Your task to perform on an android device: open app "Expedia: Hotels, Flights & Car" (install if not already installed) and go to login screen Image 0: 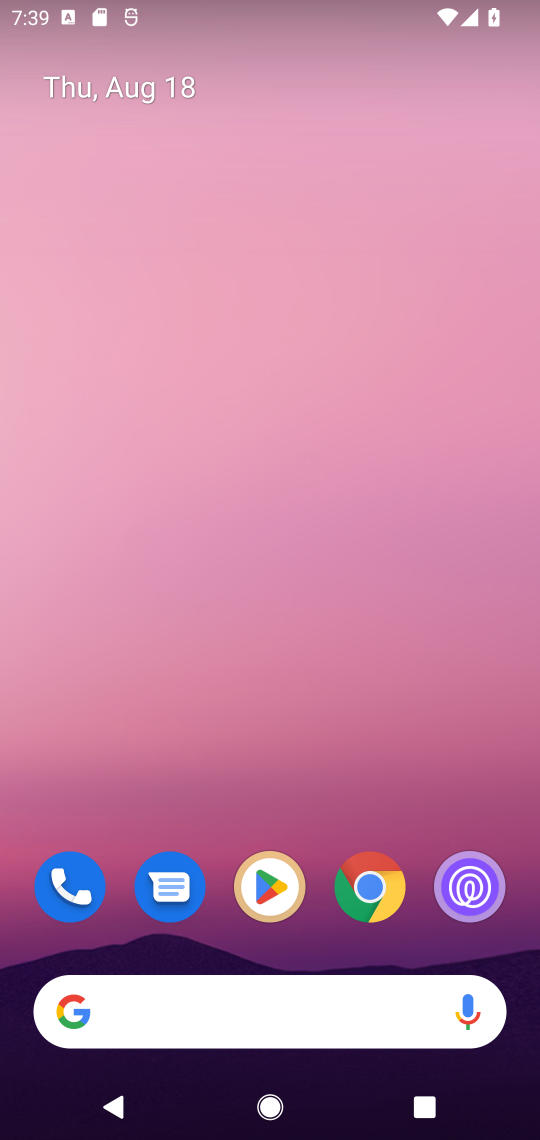
Step 0: drag from (308, 923) to (294, 121)
Your task to perform on an android device: open app "Expedia: Hotels, Flights & Car" (install if not already installed) and go to login screen Image 1: 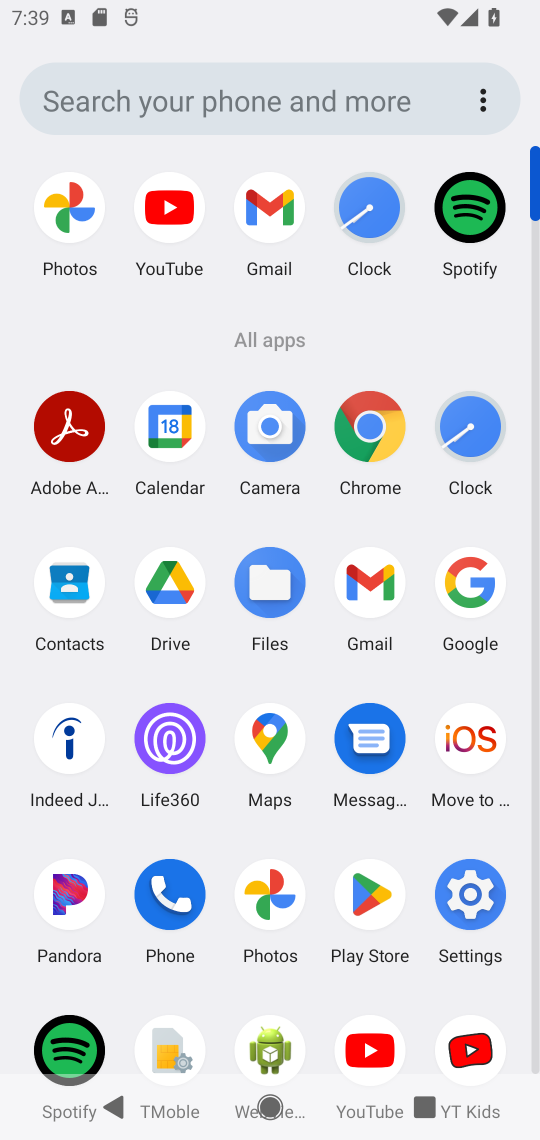
Step 1: click (377, 900)
Your task to perform on an android device: open app "Expedia: Hotels, Flights & Car" (install if not already installed) and go to login screen Image 2: 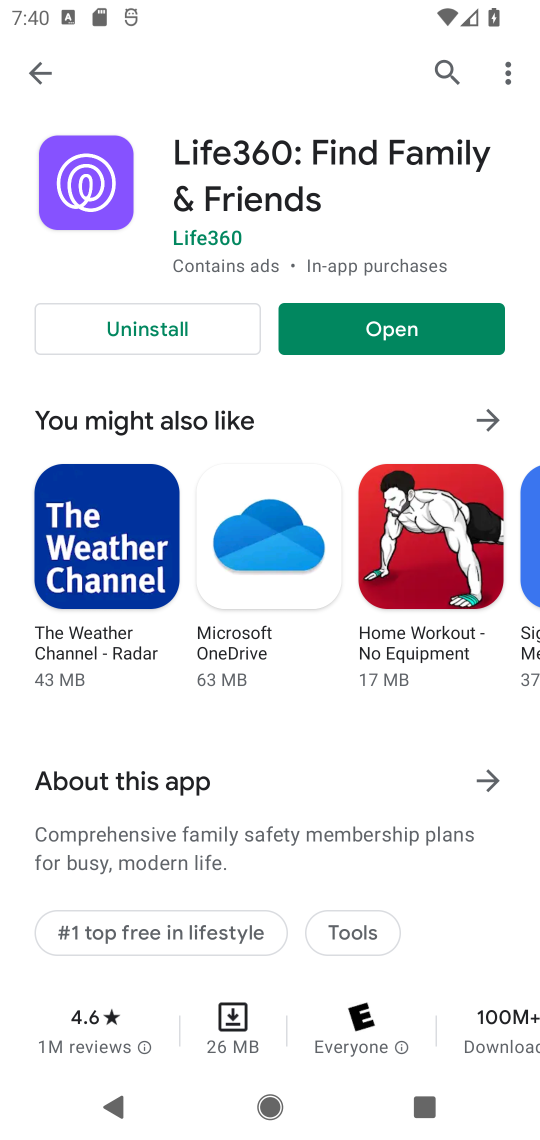
Step 2: click (378, 331)
Your task to perform on an android device: open app "Expedia: Hotels, Flights & Car" (install if not already installed) and go to login screen Image 3: 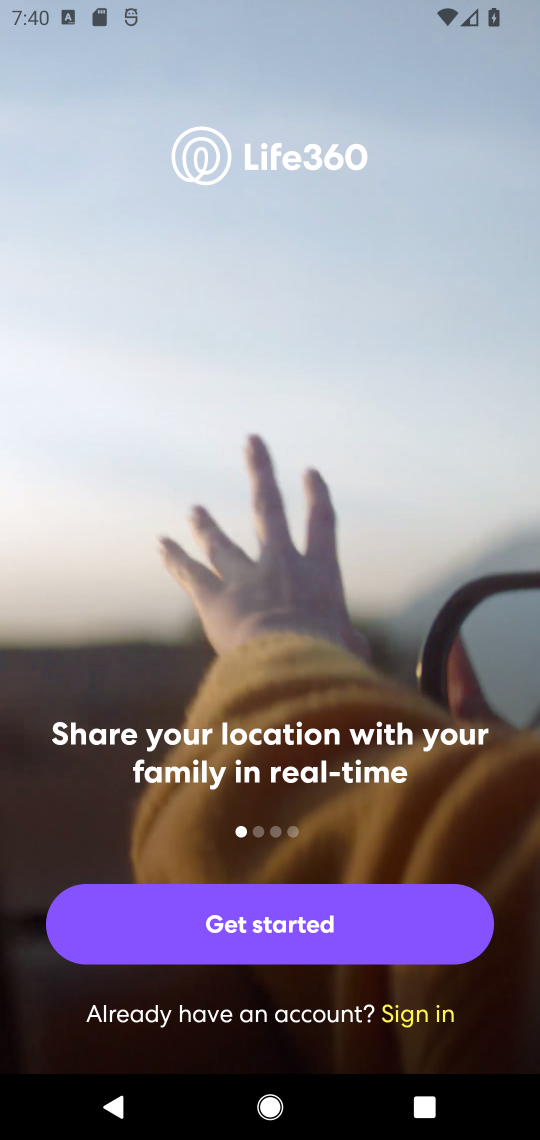
Step 3: task complete